Your task to perform on an android device: search for starred emails in the gmail app Image 0: 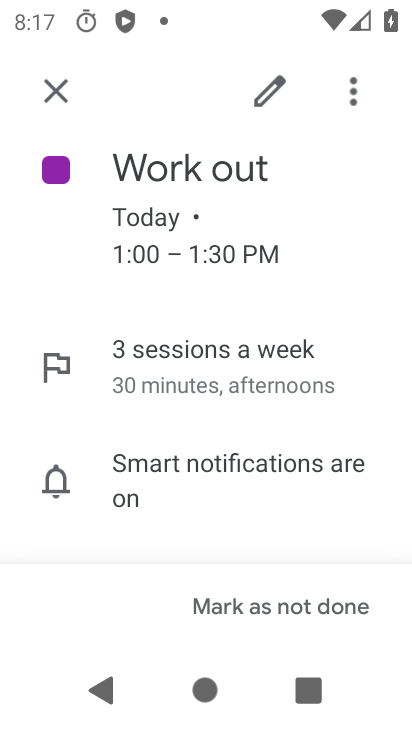
Step 0: press home button
Your task to perform on an android device: search for starred emails in the gmail app Image 1: 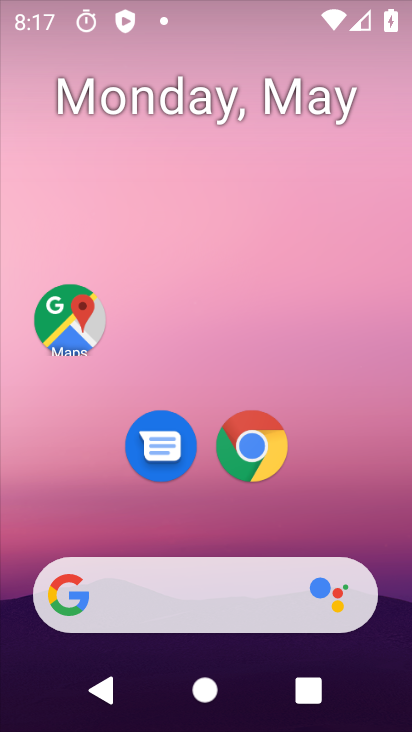
Step 1: drag from (321, 521) to (263, 3)
Your task to perform on an android device: search for starred emails in the gmail app Image 2: 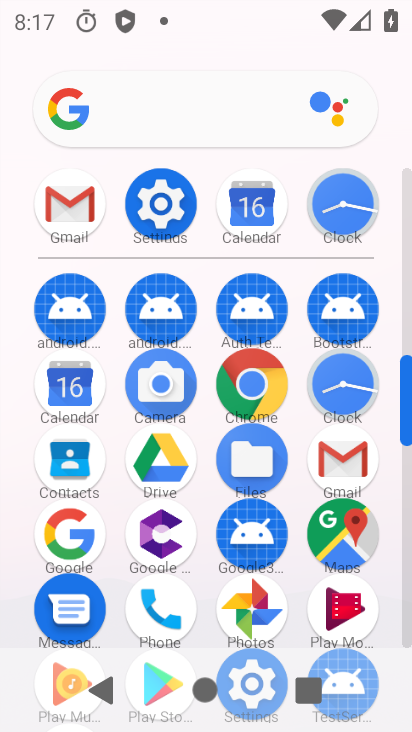
Step 2: click (48, 199)
Your task to perform on an android device: search for starred emails in the gmail app Image 3: 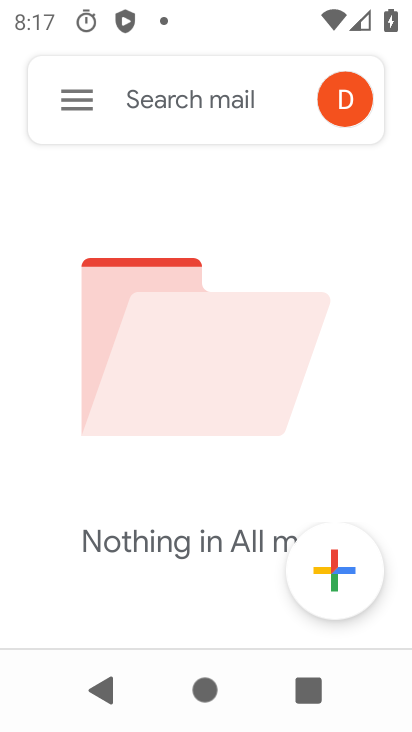
Step 3: click (79, 112)
Your task to perform on an android device: search for starred emails in the gmail app Image 4: 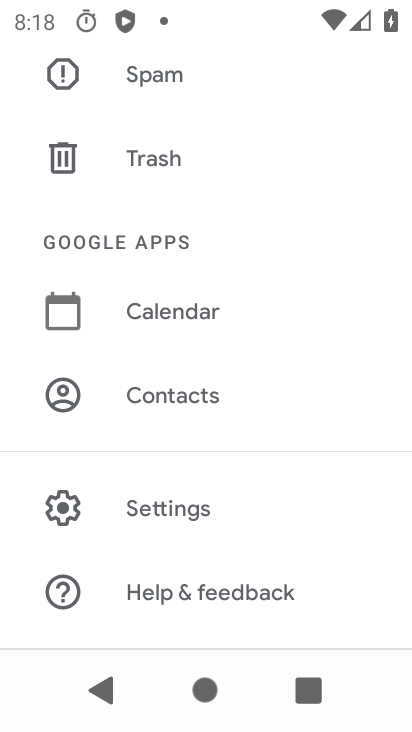
Step 4: drag from (219, 199) to (163, 611)
Your task to perform on an android device: search for starred emails in the gmail app Image 5: 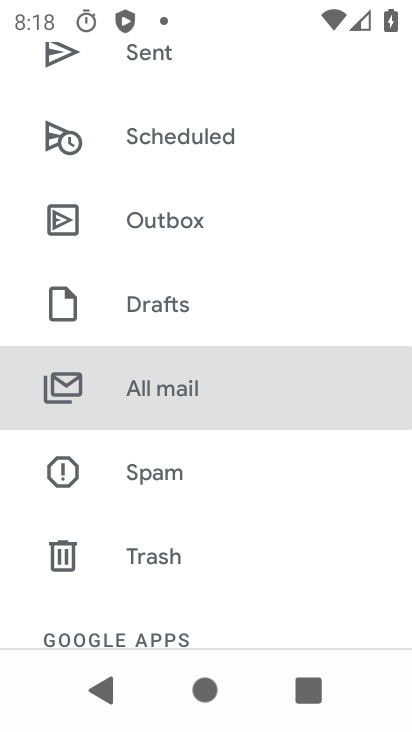
Step 5: drag from (218, 210) to (197, 548)
Your task to perform on an android device: search for starred emails in the gmail app Image 6: 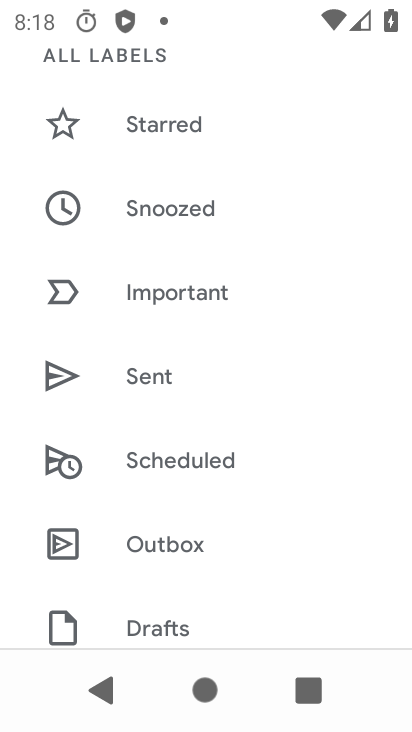
Step 6: click (173, 132)
Your task to perform on an android device: search for starred emails in the gmail app Image 7: 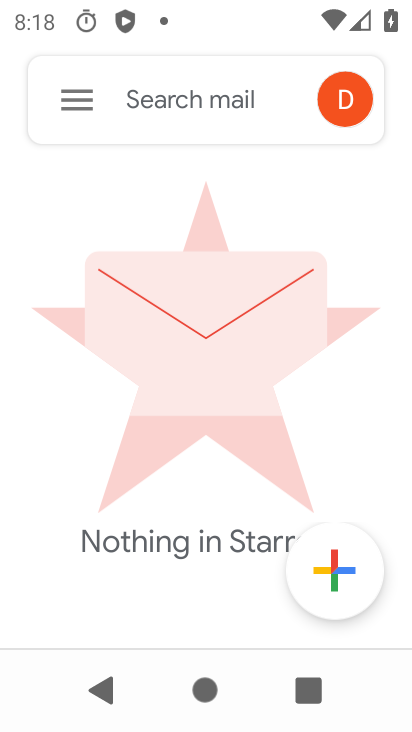
Step 7: task complete